Your task to perform on an android device: allow cookies in the chrome app Image 0: 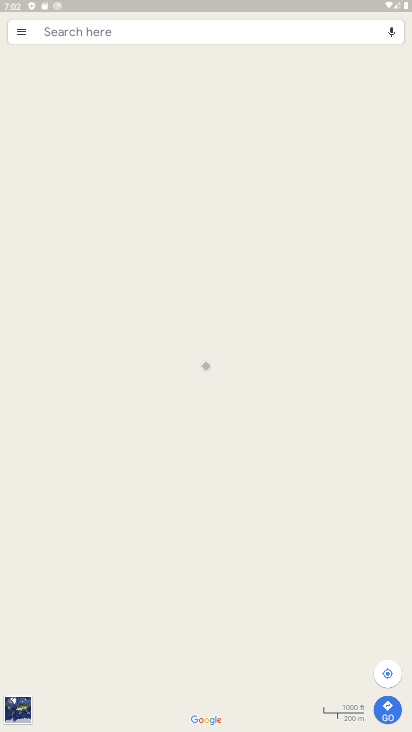
Step 0: press home button
Your task to perform on an android device: allow cookies in the chrome app Image 1: 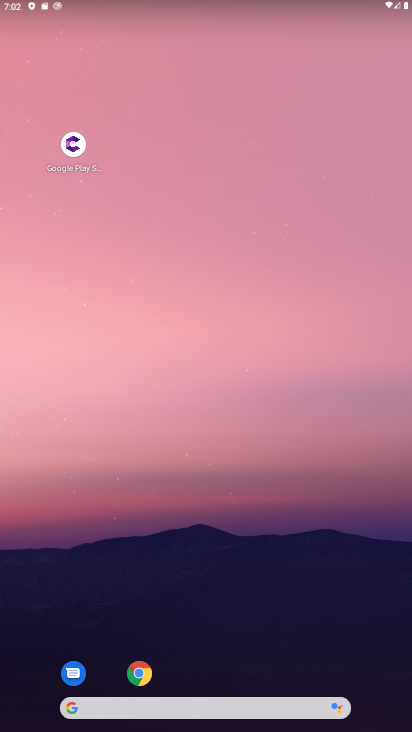
Step 1: drag from (400, 649) to (205, 70)
Your task to perform on an android device: allow cookies in the chrome app Image 2: 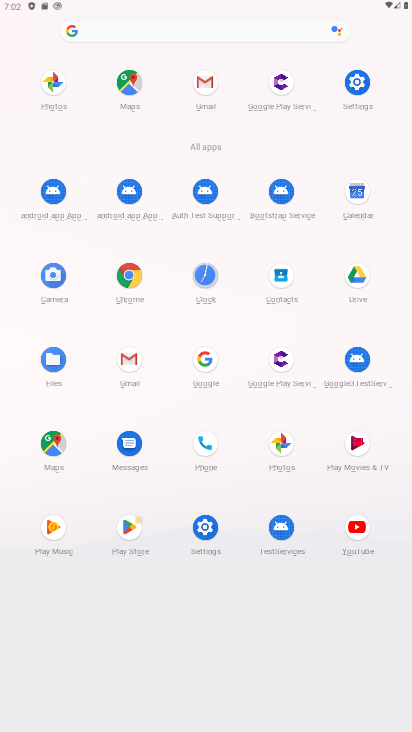
Step 2: click (123, 279)
Your task to perform on an android device: allow cookies in the chrome app Image 3: 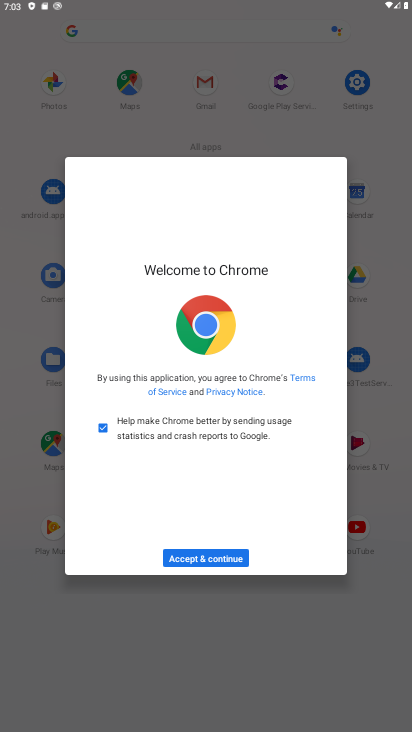
Step 3: click (215, 565)
Your task to perform on an android device: allow cookies in the chrome app Image 4: 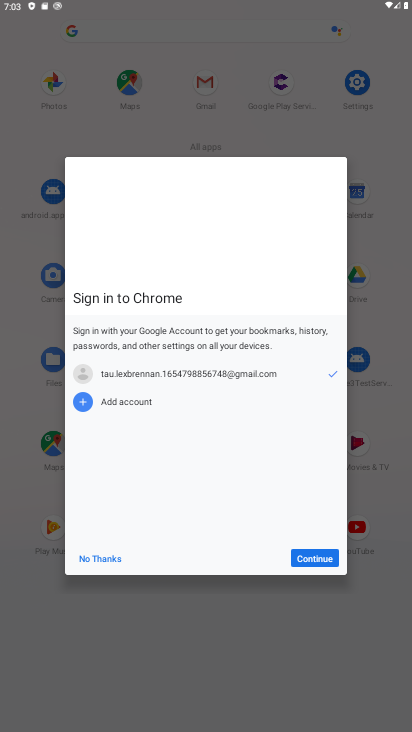
Step 4: click (294, 557)
Your task to perform on an android device: allow cookies in the chrome app Image 5: 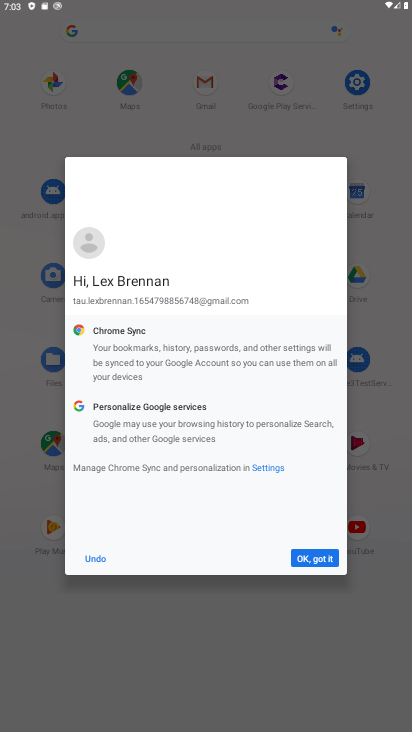
Step 5: click (295, 557)
Your task to perform on an android device: allow cookies in the chrome app Image 6: 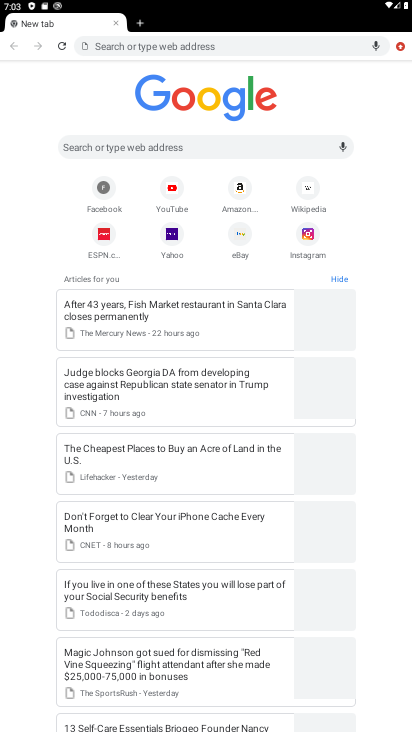
Step 6: click (402, 44)
Your task to perform on an android device: allow cookies in the chrome app Image 7: 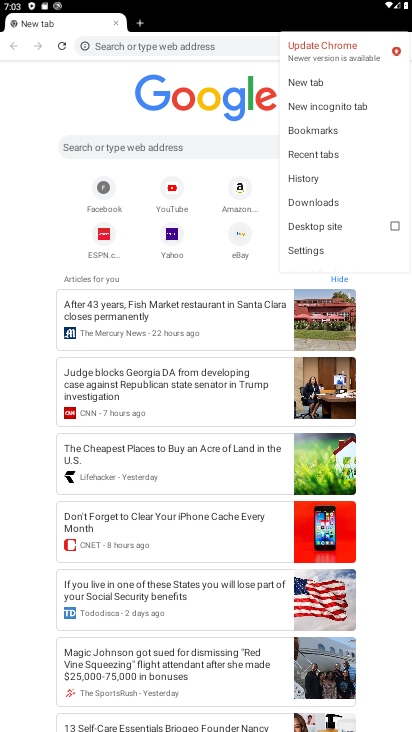
Step 7: click (308, 174)
Your task to perform on an android device: allow cookies in the chrome app Image 8: 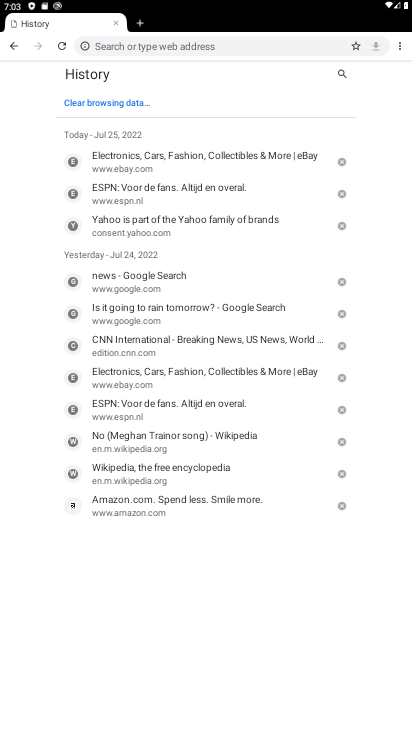
Step 8: click (119, 110)
Your task to perform on an android device: allow cookies in the chrome app Image 9: 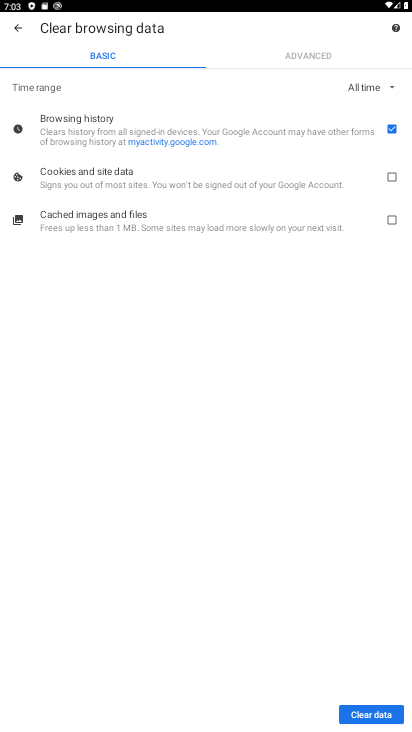
Step 9: click (270, 183)
Your task to perform on an android device: allow cookies in the chrome app Image 10: 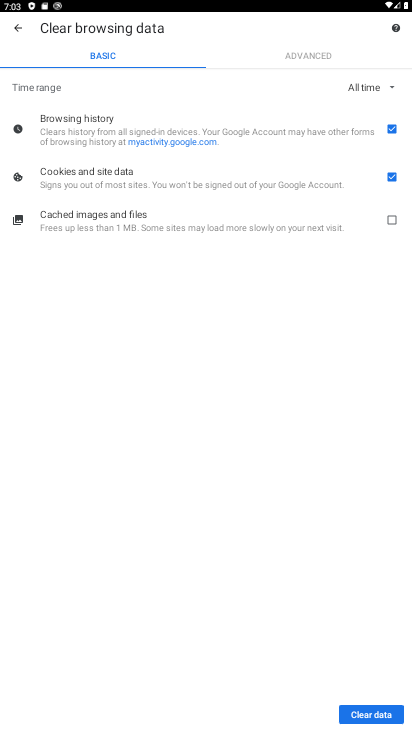
Step 10: task complete